Your task to perform on an android device: Do I have any events tomorrow? Image 0: 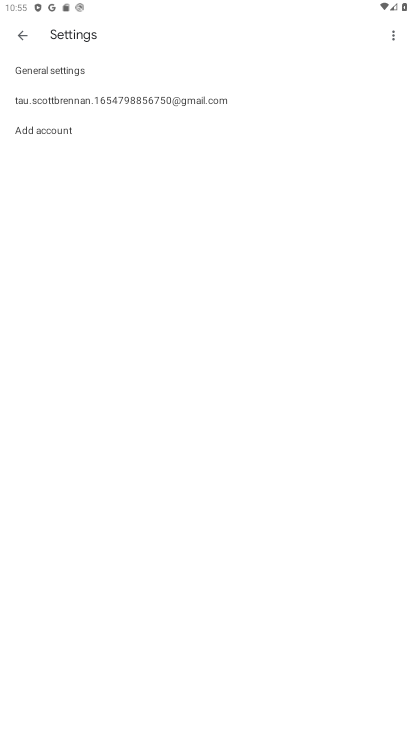
Step 0: press home button
Your task to perform on an android device: Do I have any events tomorrow? Image 1: 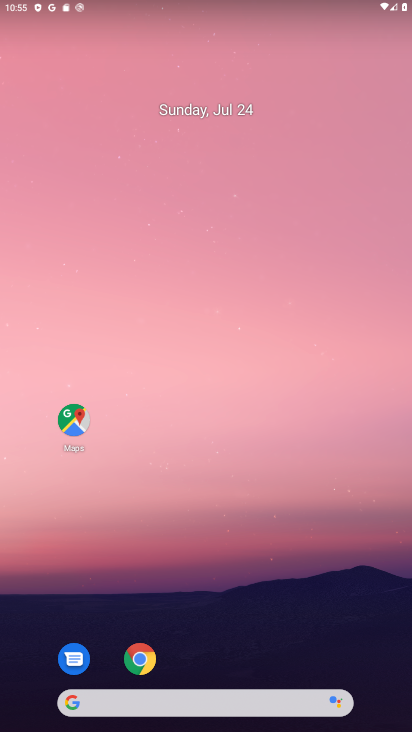
Step 1: drag from (210, 606) to (231, 120)
Your task to perform on an android device: Do I have any events tomorrow? Image 2: 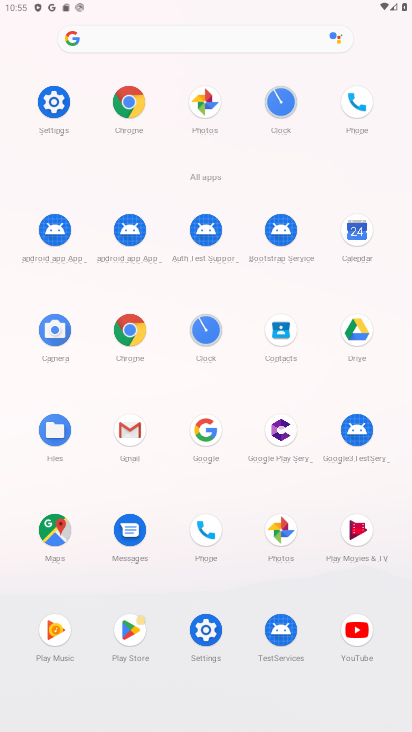
Step 2: click (353, 227)
Your task to perform on an android device: Do I have any events tomorrow? Image 3: 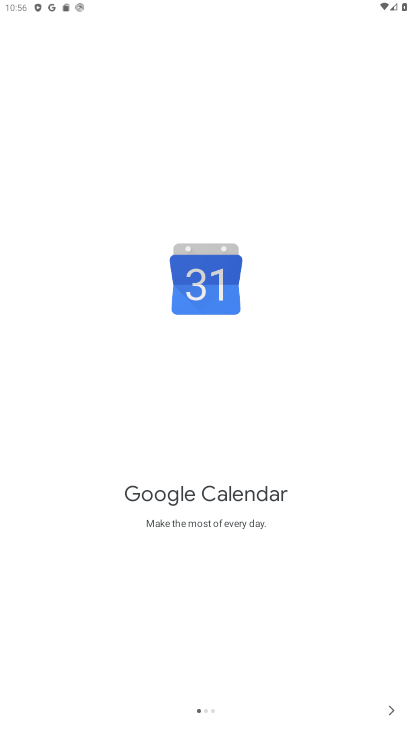
Step 3: click (394, 720)
Your task to perform on an android device: Do I have any events tomorrow? Image 4: 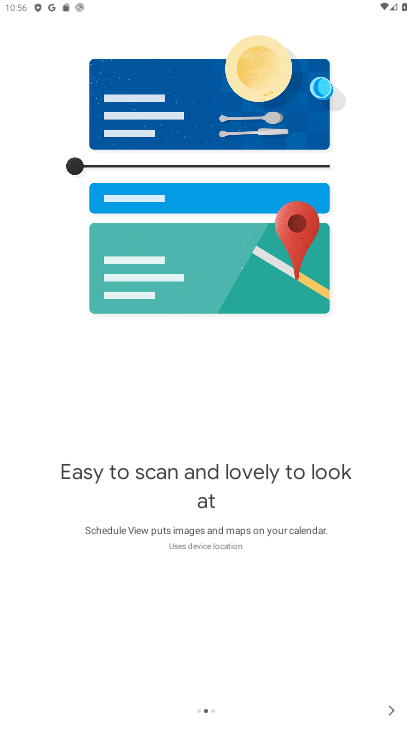
Step 4: click (394, 720)
Your task to perform on an android device: Do I have any events tomorrow? Image 5: 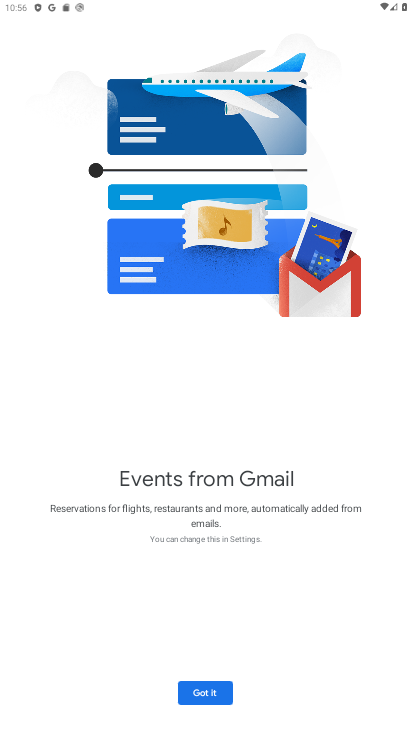
Step 5: click (201, 706)
Your task to perform on an android device: Do I have any events tomorrow? Image 6: 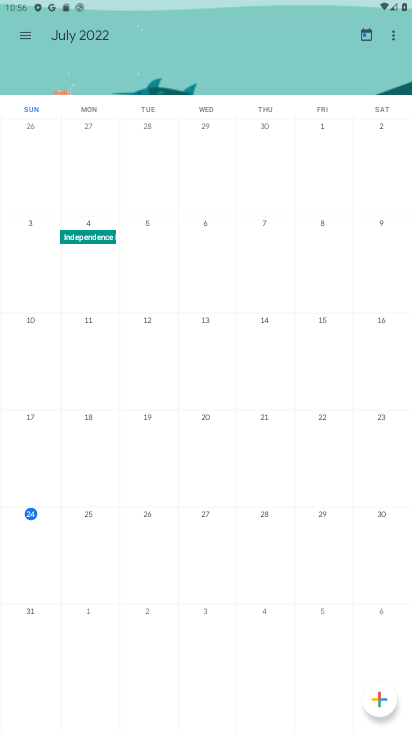
Step 6: click (142, 519)
Your task to perform on an android device: Do I have any events tomorrow? Image 7: 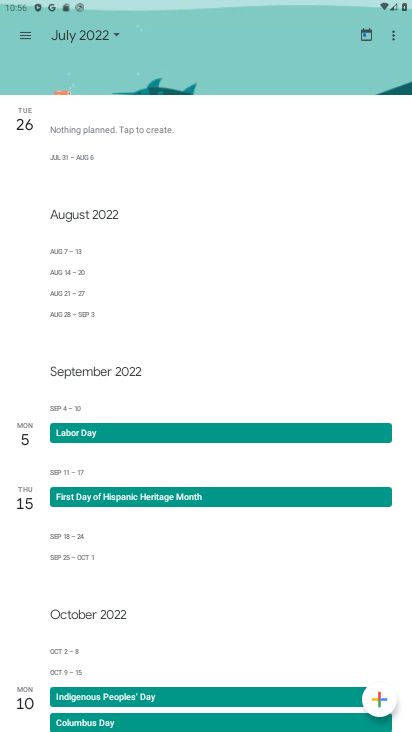
Step 7: task complete